Your task to perform on an android device: see creations saved in the google photos Image 0: 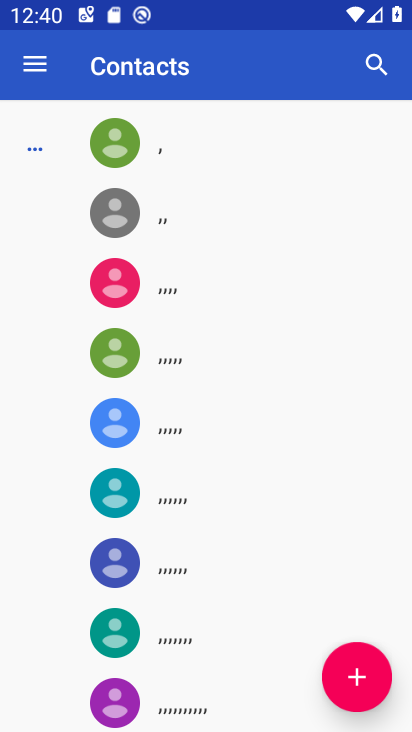
Step 0: press home button
Your task to perform on an android device: see creations saved in the google photos Image 1: 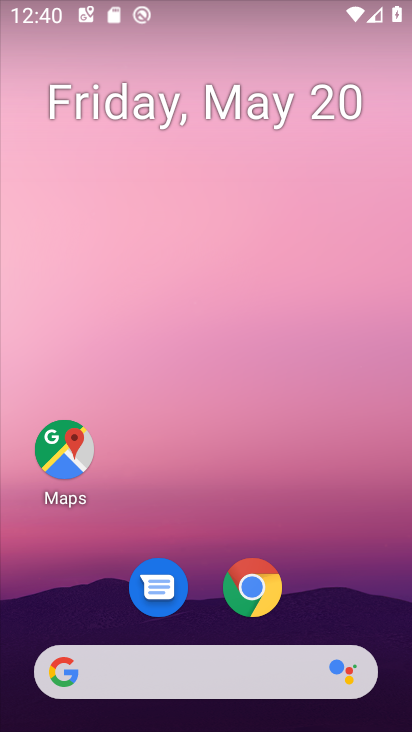
Step 1: drag from (372, 631) to (371, 151)
Your task to perform on an android device: see creations saved in the google photos Image 2: 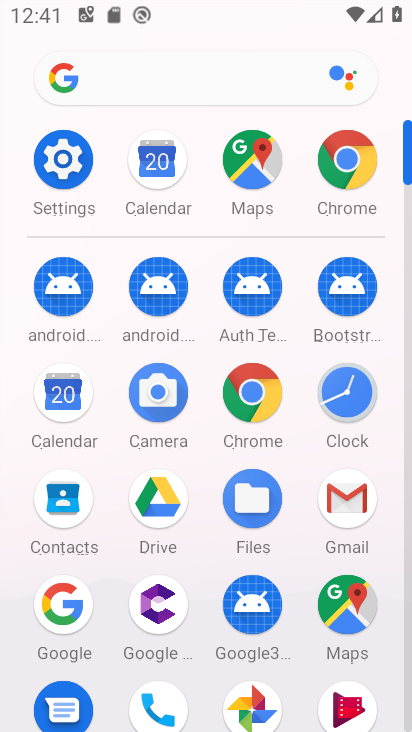
Step 2: drag from (376, 660) to (390, 505)
Your task to perform on an android device: see creations saved in the google photos Image 3: 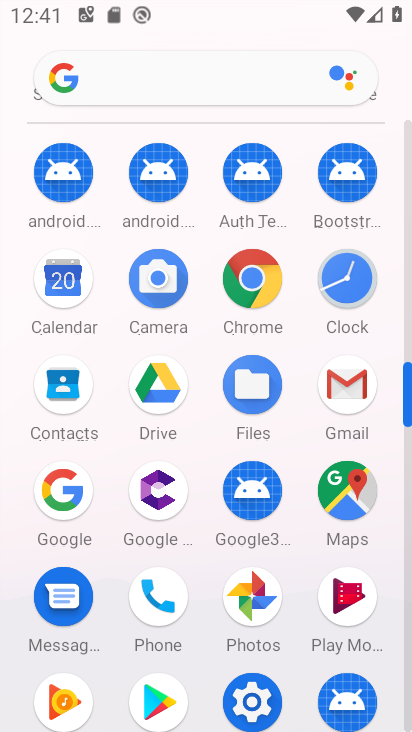
Step 3: click (252, 605)
Your task to perform on an android device: see creations saved in the google photos Image 4: 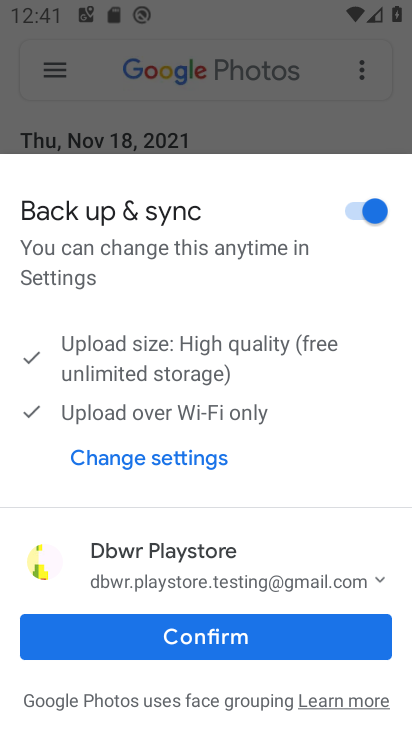
Step 4: click (253, 636)
Your task to perform on an android device: see creations saved in the google photos Image 5: 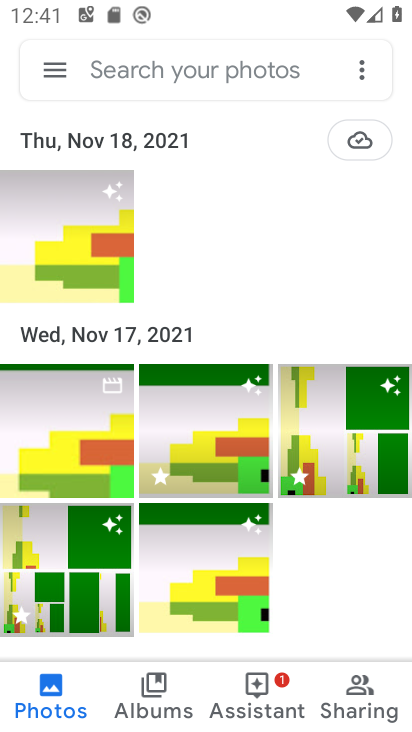
Step 5: click (193, 74)
Your task to perform on an android device: see creations saved in the google photos Image 6: 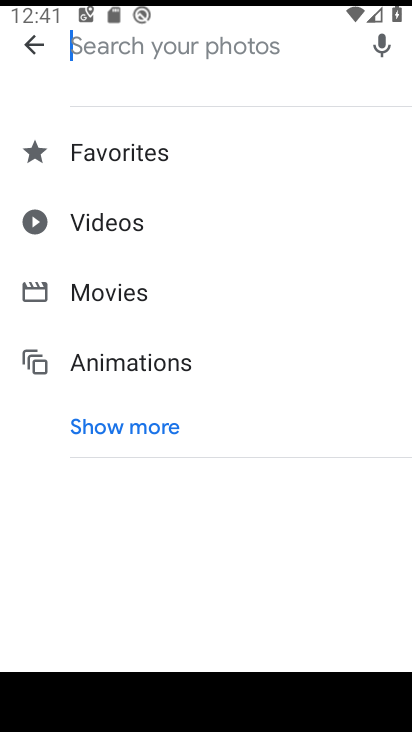
Step 6: click (146, 441)
Your task to perform on an android device: see creations saved in the google photos Image 7: 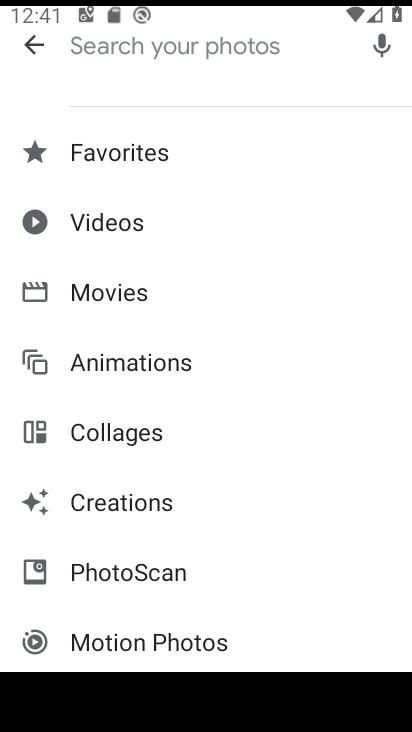
Step 7: click (146, 499)
Your task to perform on an android device: see creations saved in the google photos Image 8: 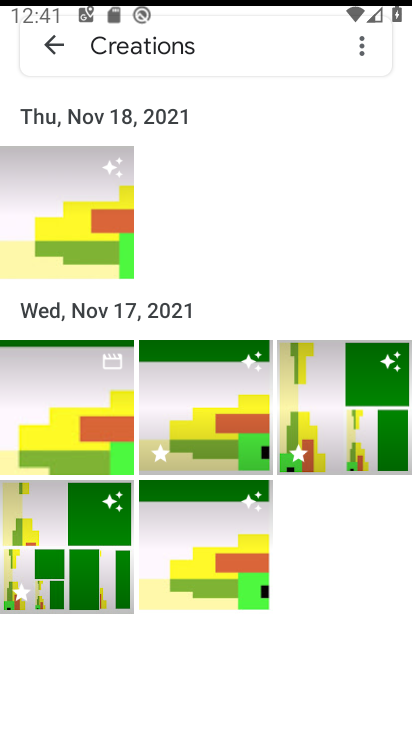
Step 8: task complete